Your task to perform on an android device: Go to Yahoo.com Image 0: 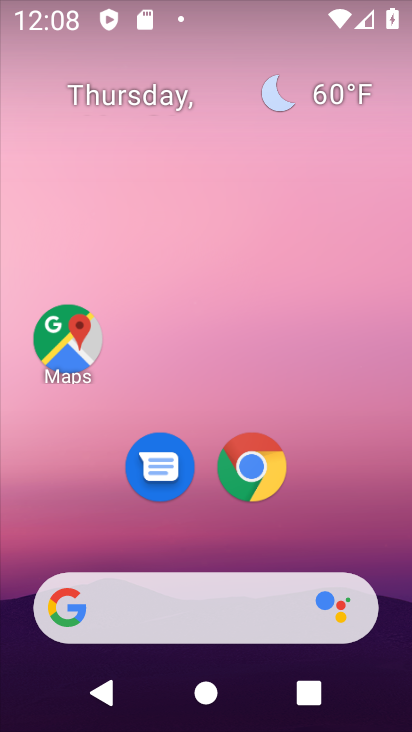
Step 0: click (266, 480)
Your task to perform on an android device: Go to Yahoo.com Image 1: 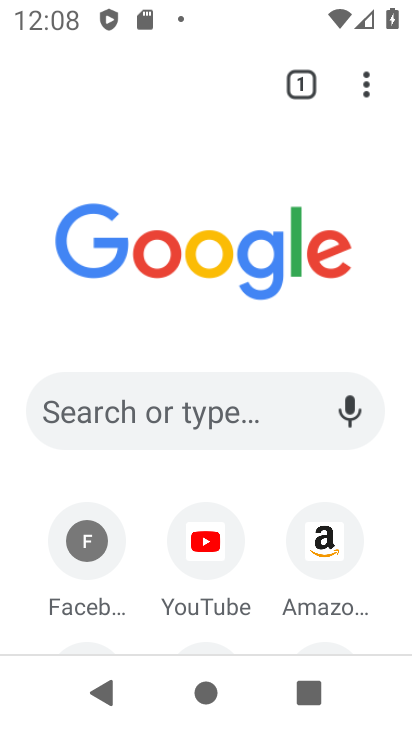
Step 1: drag from (262, 504) to (289, 294)
Your task to perform on an android device: Go to Yahoo.com Image 2: 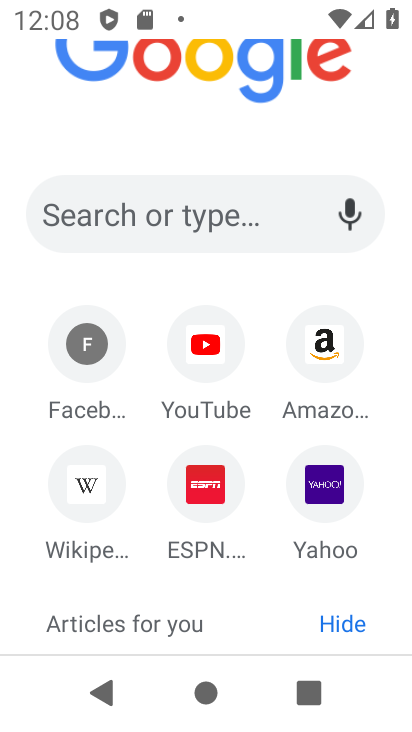
Step 2: click (307, 498)
Your task to perform on an android device: Go to Yahoo.com Image 3: 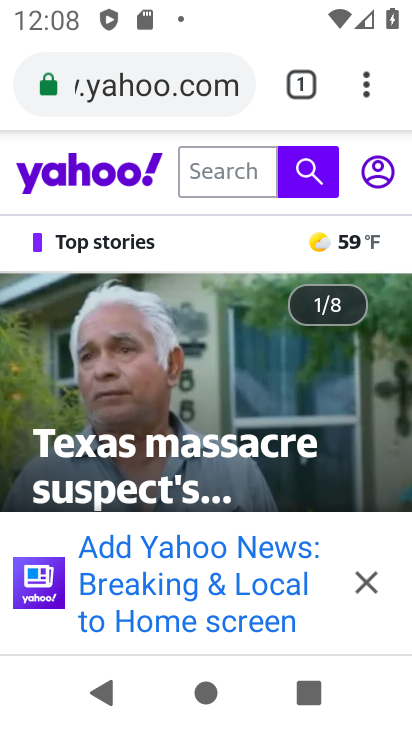
Step 3: task complete